Your task to perform on an android device: Is it going to rain today? Image 0: 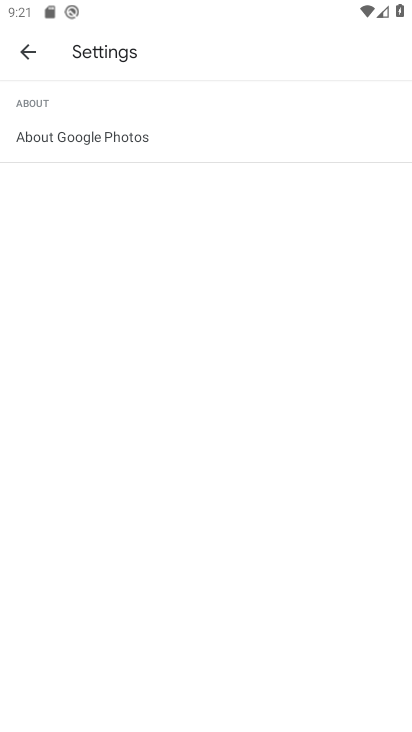
Step 0: press home button
Your task to perform on an android device: Is it going to rain today? Image 1: 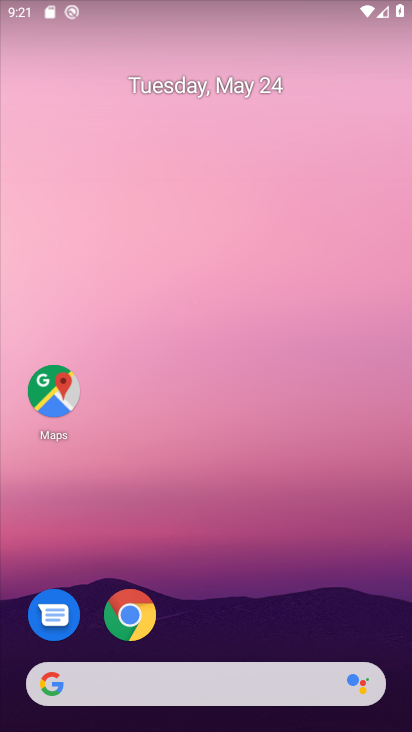
Step 1: click (234, 687)
Your task to perform on an android device: Is it going to rain today? Image 2: 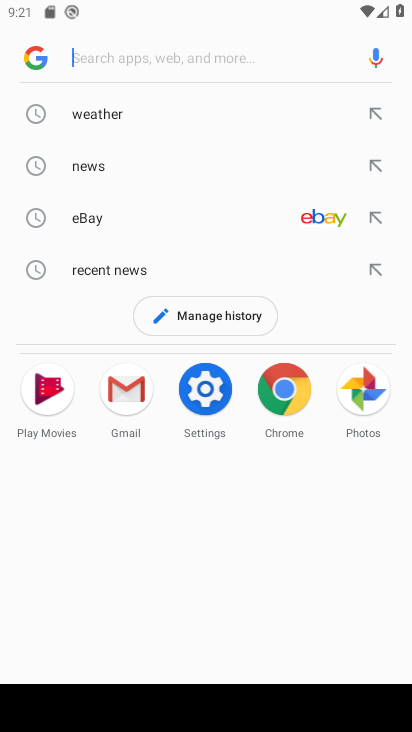
Step 2: click (118, 115)
Your task to perform on an android device: Is it going to rain today? Image 3: 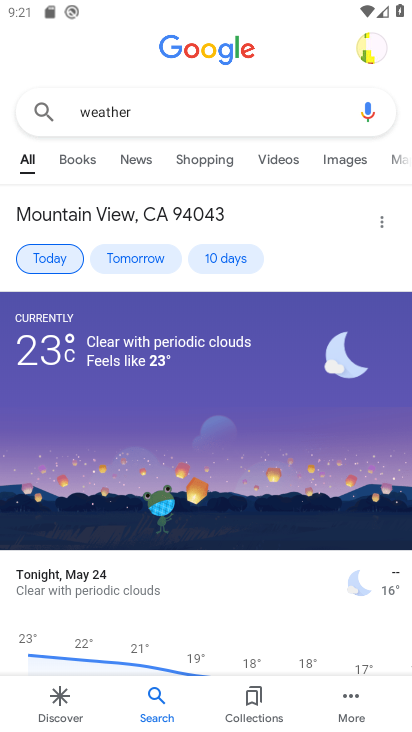
Step 3: click (47, 262)
Your task to perform on an android device: Is it going to rain today? Image 4: 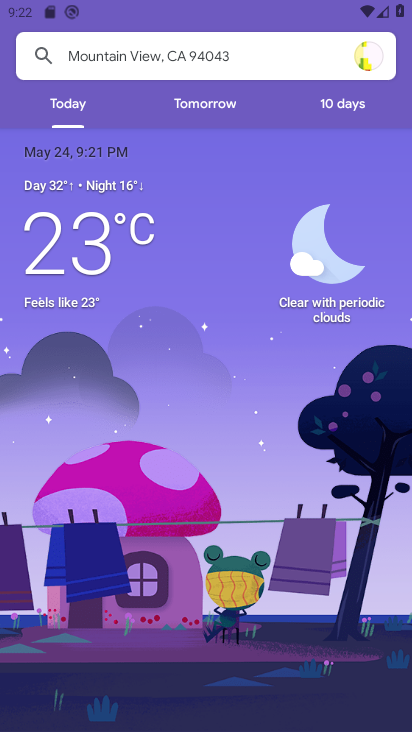
Step 4: task complete